Your task to perform on an android device: change the clock display to digital Image 0: 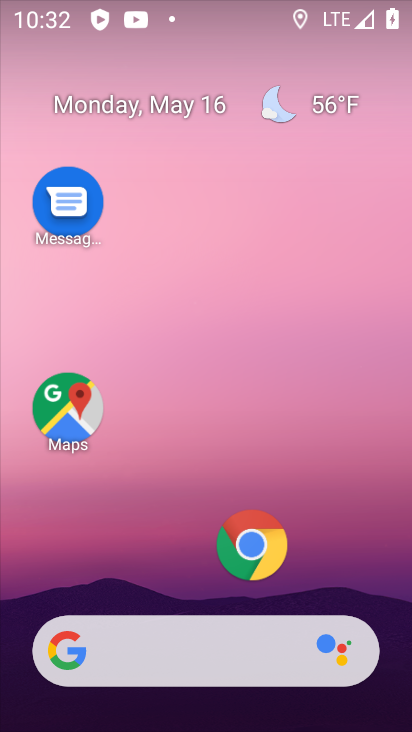
Step 0: drag from (207, 577) to (200, 43)
Your task to perform on an android device: change the clock display to digital Image 1: 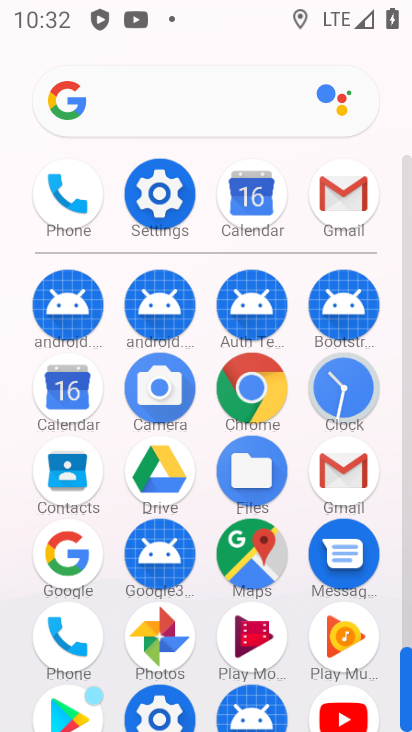
Step 1: click (357, 392)
Your task to perform on an android device: change the clock display to digital Image 2: 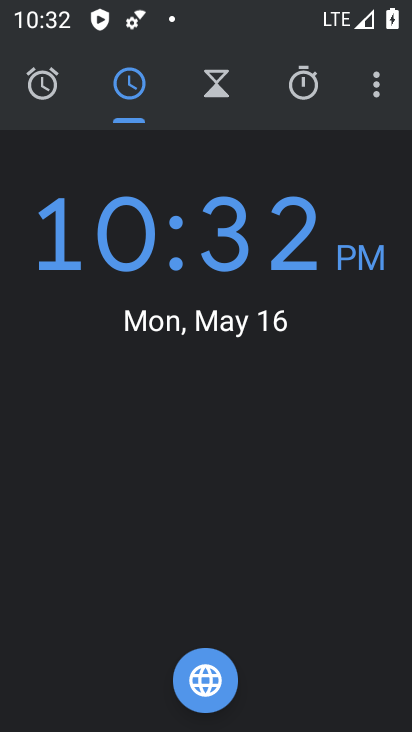
Step 2: click (373, 78)
Your task to perform on an android device: change the clock display to digital Image 3: 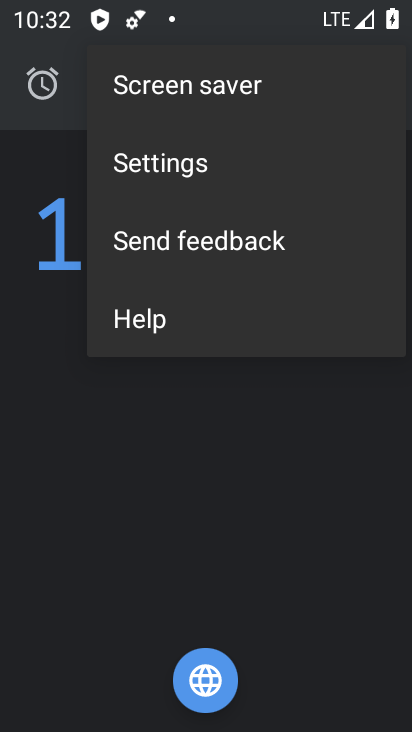
Step 3: click (207, 156)
Your task to perform on an android device: change the clock display to digital Image 4: 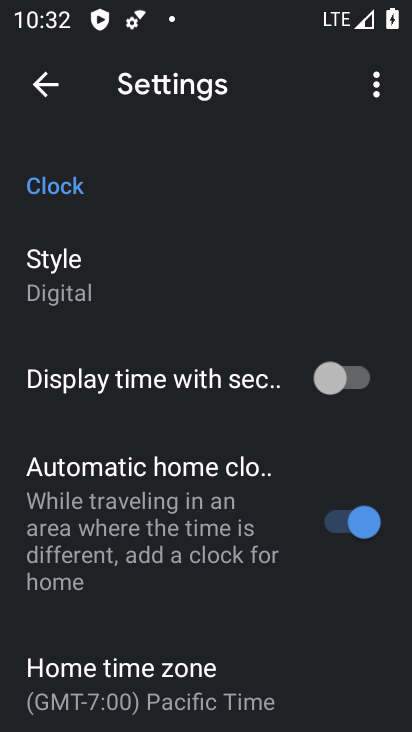
Step 4: click (92, 282)
Your task to perform on an android device: change the clock display to digital Image 5: 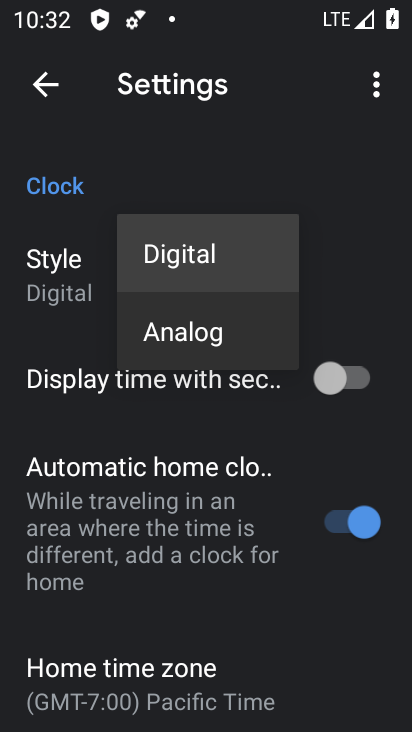
Step 5: click (140, 255)
Your task to perform on an android device: change the clock display to digital Image 6: 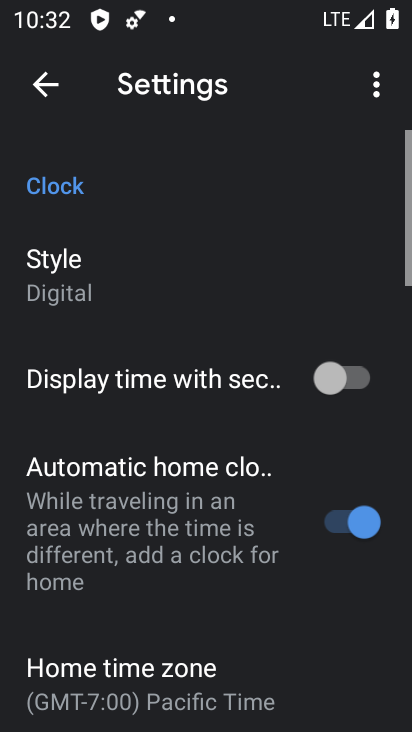
Step 6: task complete